Your task to perform on an android device: set the timer Image 0: 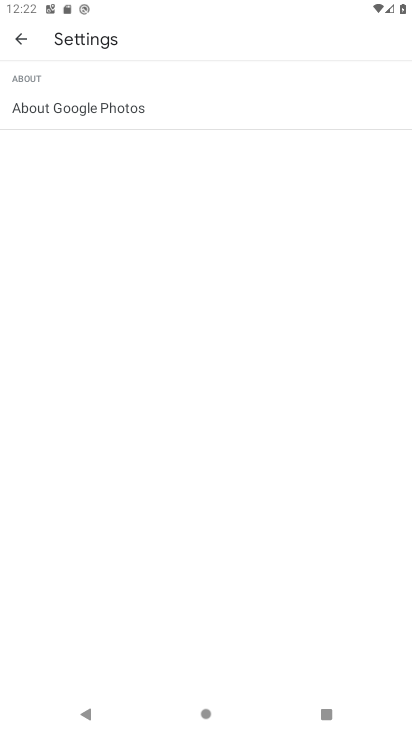
Step 0: press back button
Your task to perform on an android device: set the timer Image 1: 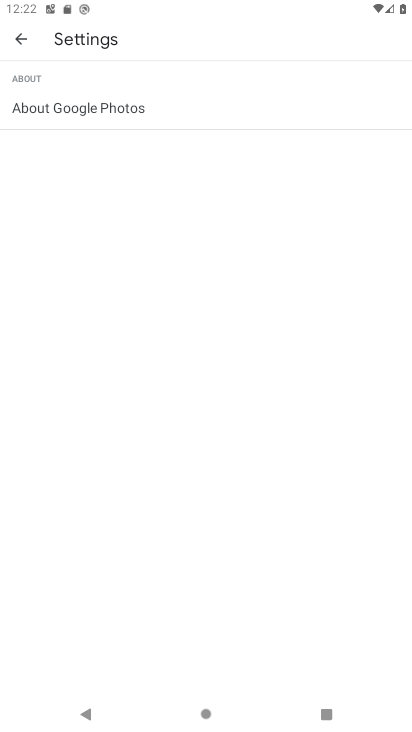
Step 1: press home button
Your task to perform on an android device: set the timer Image 2: 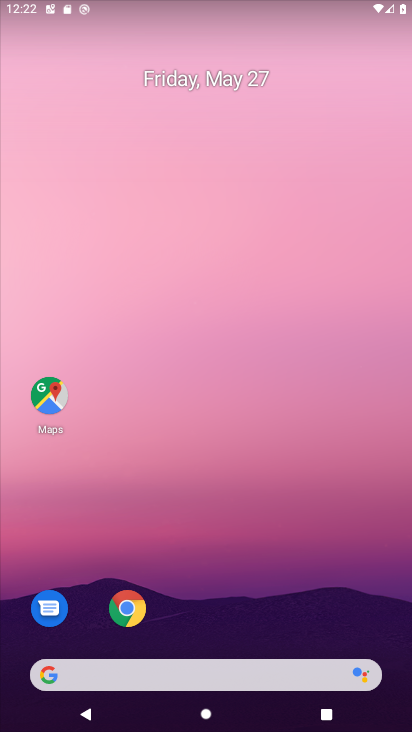
Step 2: drag from (384, 684) to (335, 164)
Your task to perform on an android device: set the timer Image 3: 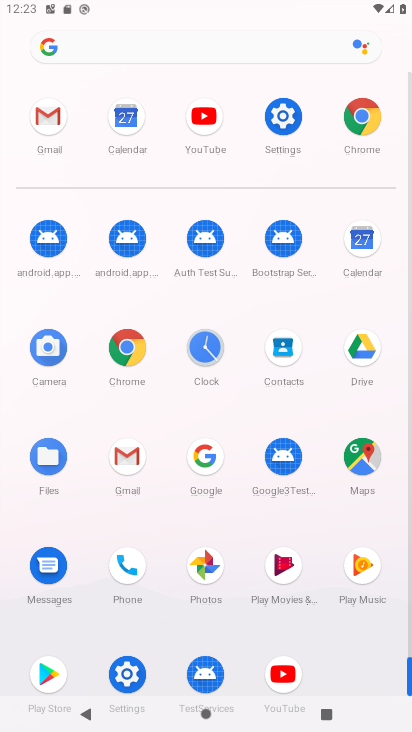
Step 3: click (278, 119)
Your task to perform on an android device: set the timer Image 4: 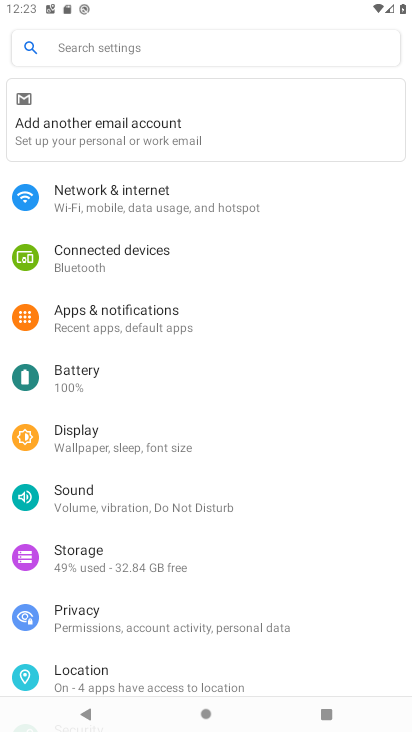
Step 4: press home button
Your task to perform on an android device: set the timer Image 5: 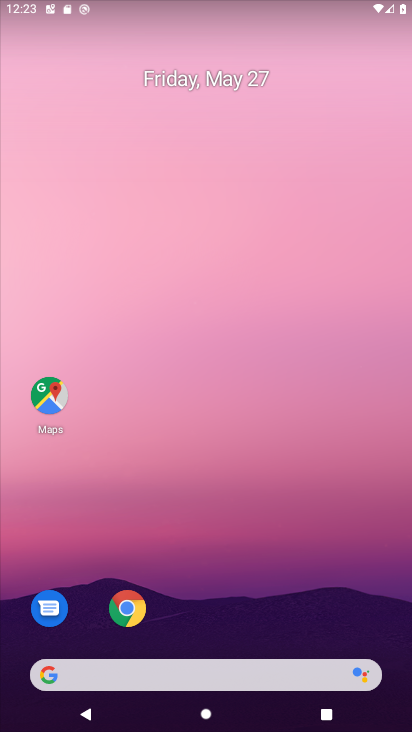
Step 5: drag from (397, 663) to (349, 197)
Your task to perform on an android device: set the timer Image 6: 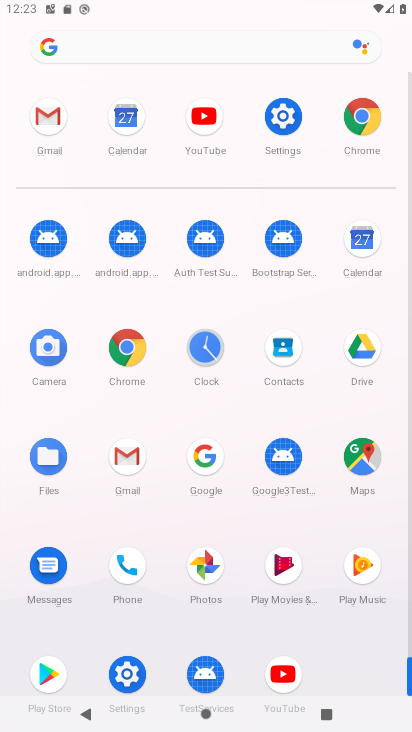
Step 6: click (196, 347)
Your task to perform on an android device: set the timer Image 7: 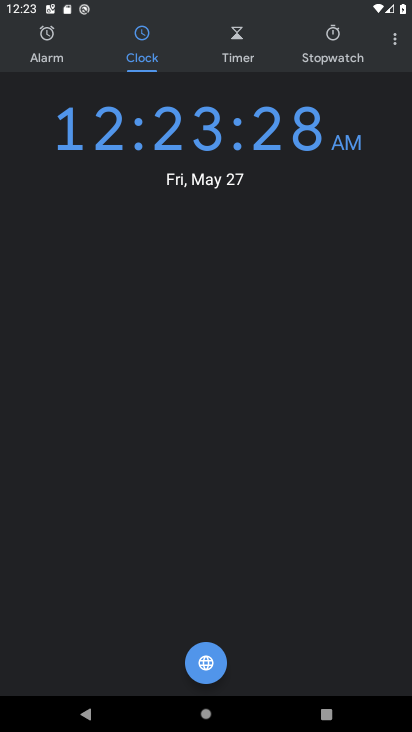
Step 7: click (330, 37)
Your task to perform on an android device: set the timer Image 8: 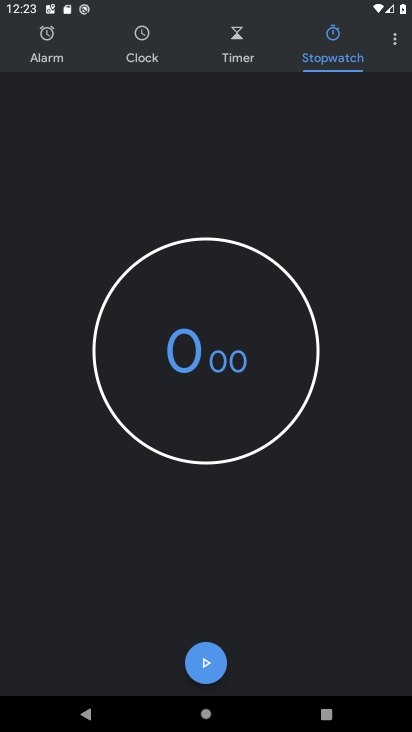
Step 8: click (229, 646)
Your task to perform on an android device: set the timer Image 9: 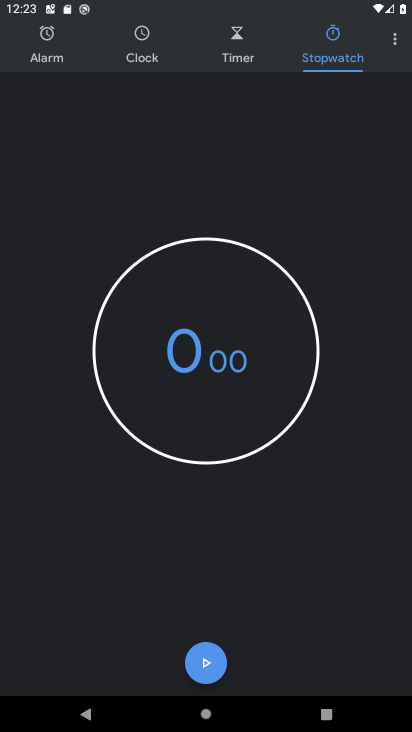
Step 9: click (200, 671)
Your task to perform on an android device: set the timer Image 10: 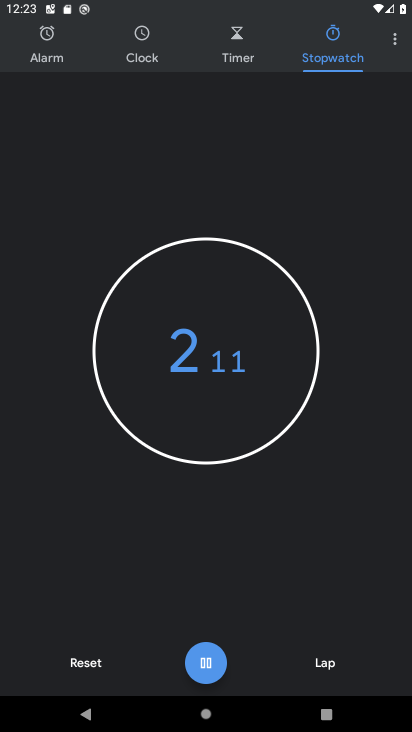
Step 10: task complete